Your task to perform on an android device: add a contact Image 0: 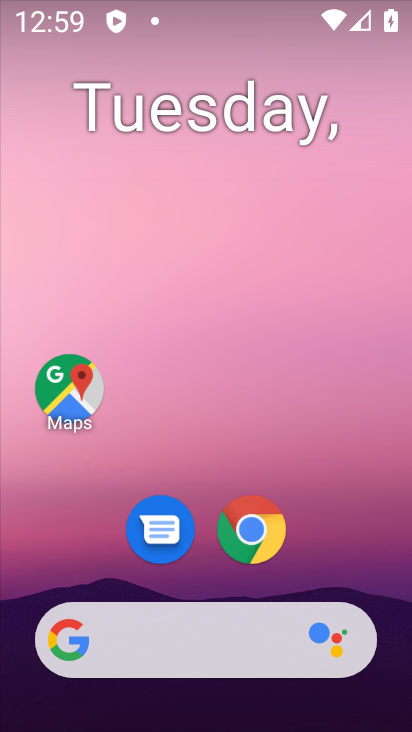
Step 0: drag from (343, 547) to (282, 168)
Your task to perform on an android device: add a contact Image 1: 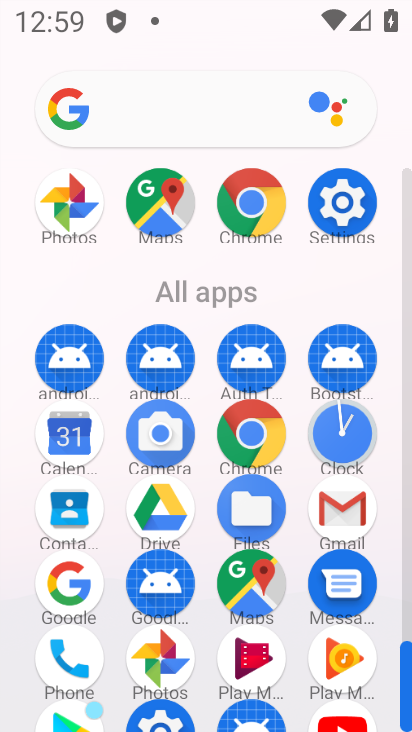
Step 1: drag from (302, 540) to (308, 320)
Your task to perform on an android device: add a contact Image 2: 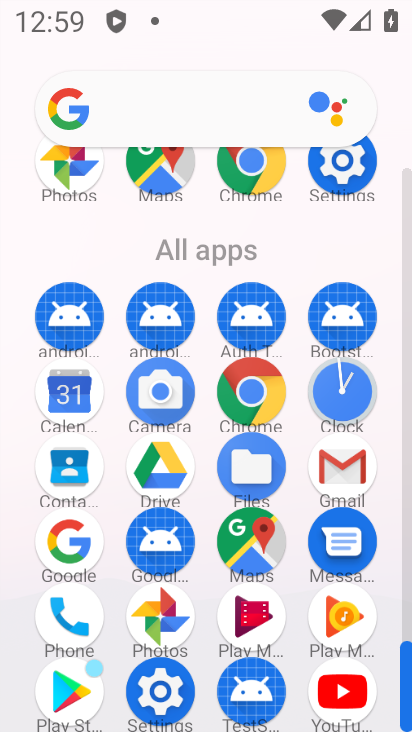
Step 2: click (71, 471)
Your task to perform on an android device: add a contact Image 3: 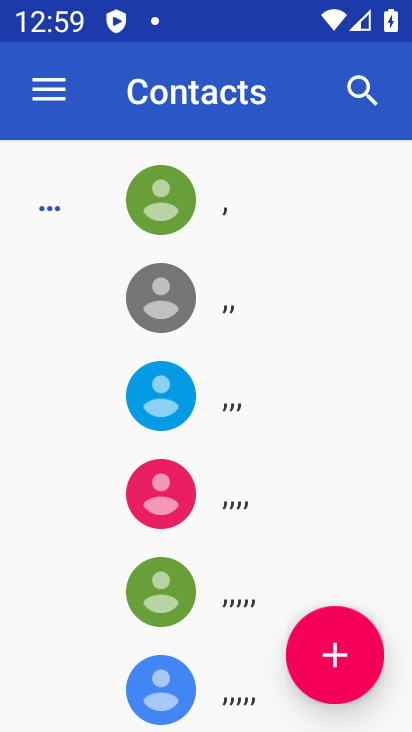
Step 3: click (338, 652)
Your task to perform on an android device: add a contact Image 4: 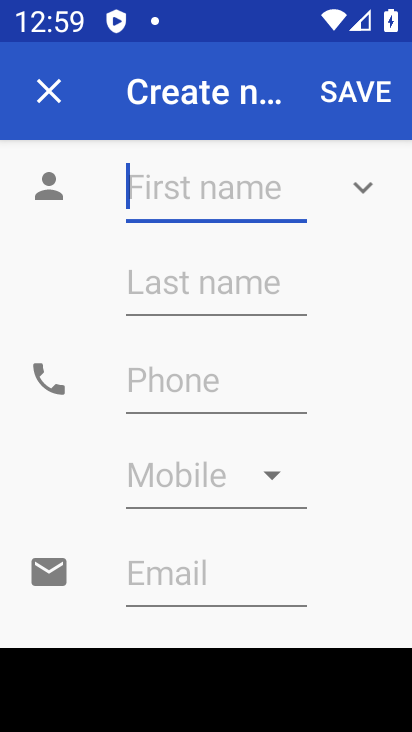
Step 4: type ""
Your task to perform on an android device: add a contact Image 5: 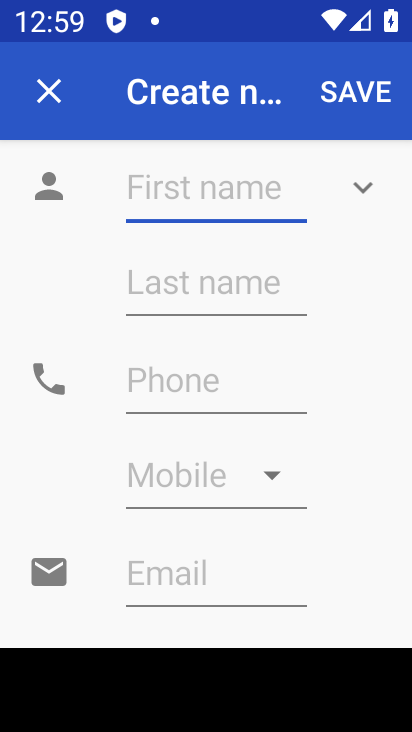
Step 5: type "Sidhhu"
Your task to perform on an android device: add a contact Image 6: 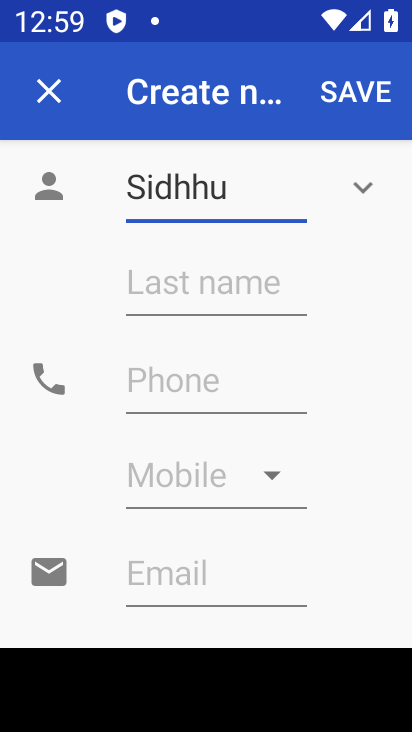
Step 6: click (220, 295)
Your task to perform on an android device: add a contact Image 7: 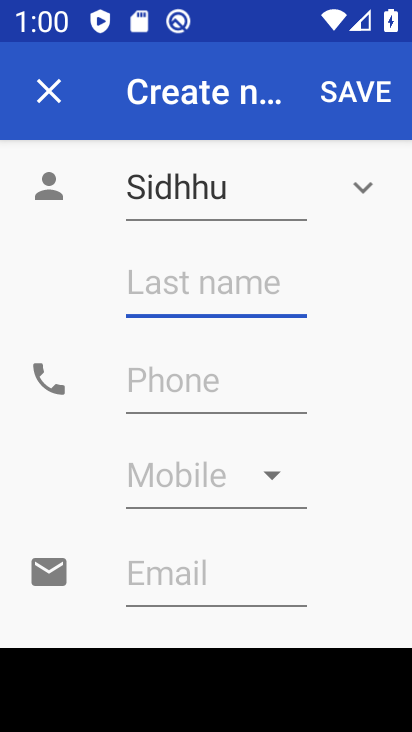
Step 7: type "Moosewala"
Your task to perform on an android device: add a contact Image 8: 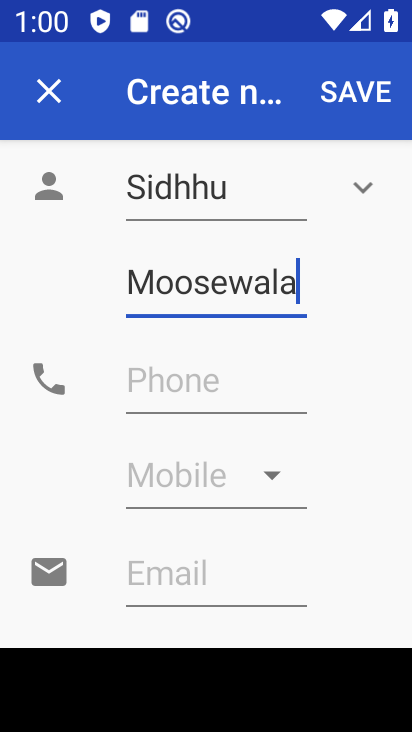
Step 8: type ""
Your task to perform on an android device: add a contact Image 9: 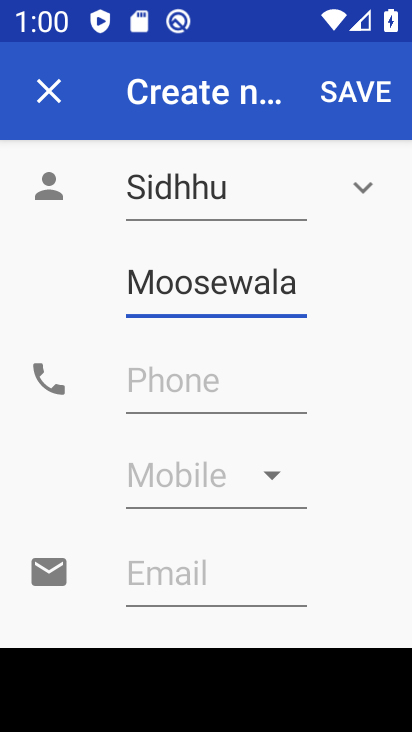
Step 9: click (222, 385)
Your task to perform on an android device: add a contact Image 10: 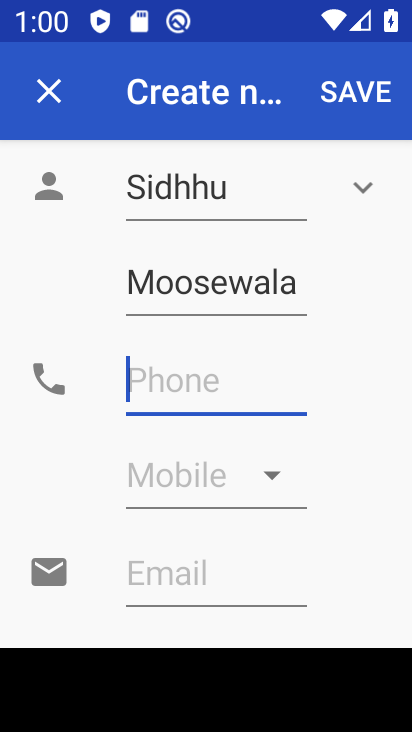
Step 10: type "09988776655"
Your task to perform on an android device: add a contact Image 11: 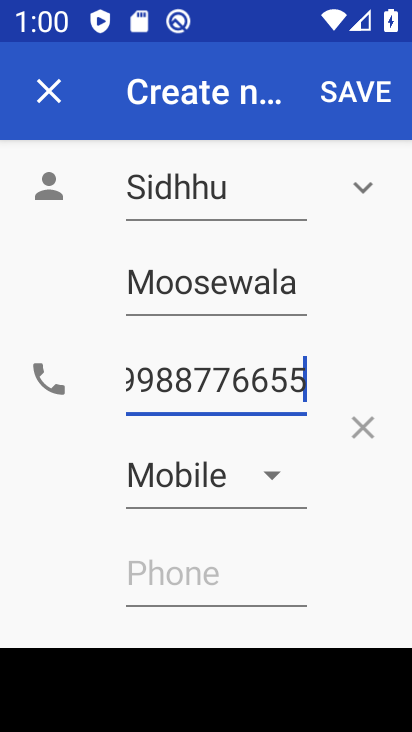
Step 11: click (337, 85)
Your task to perform on an android device: add a contact Image 12: 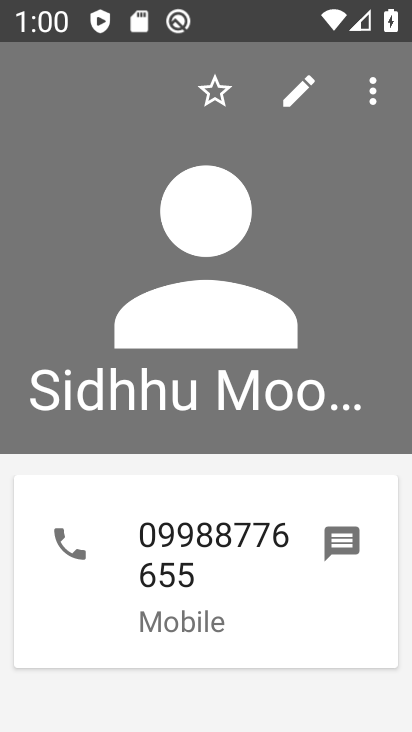
Step 12: task complete